Your task to perform on an android device: open app "TextNow: Call + Text Unlimited" (install if not already installed) and enter user name: "stoke@yahoo.com" and password: "prompted" Image 0: 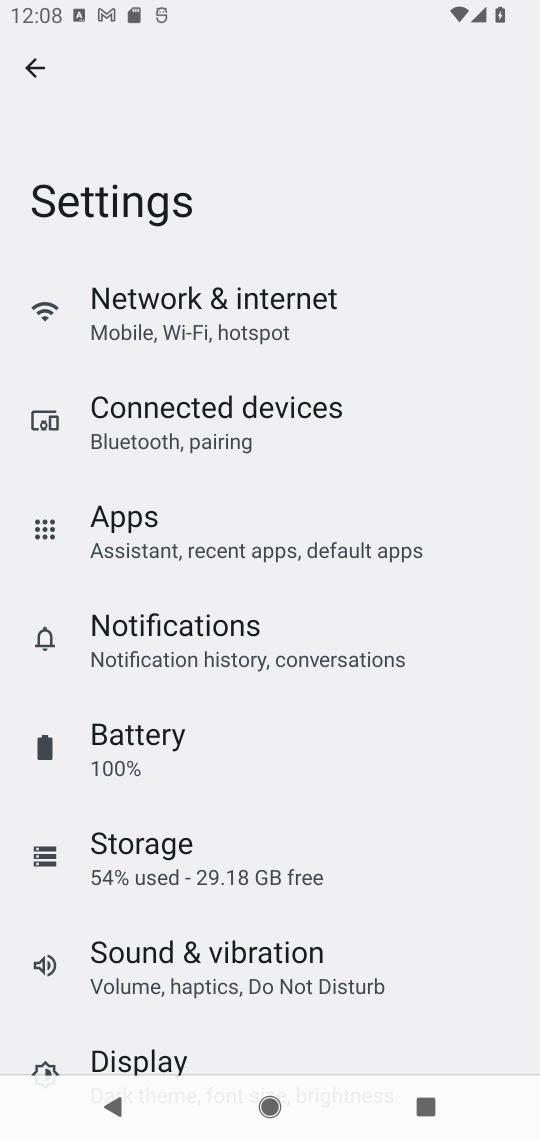
Step 0: press home button
Your task to perform on an android device: open app "TextNow: Call + Text Unlimited" (install if not already installed) and enter user name: "stoke@yahoo.com" and password: "prompted" Image 1: 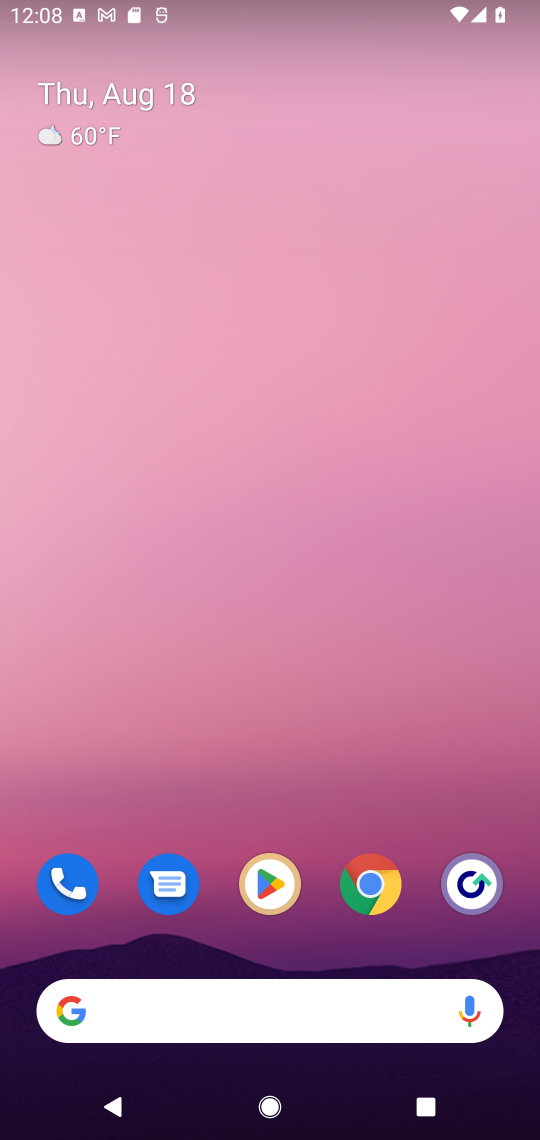
Step 1: drag from (134, 1017) to (290, 188)
Your task to perform on an android device: open app "TextNow: Call + Text Unlimited" (install if not already installed) and enter user name: "stoke@yahoo.com" and password: "prompted" Image 2: 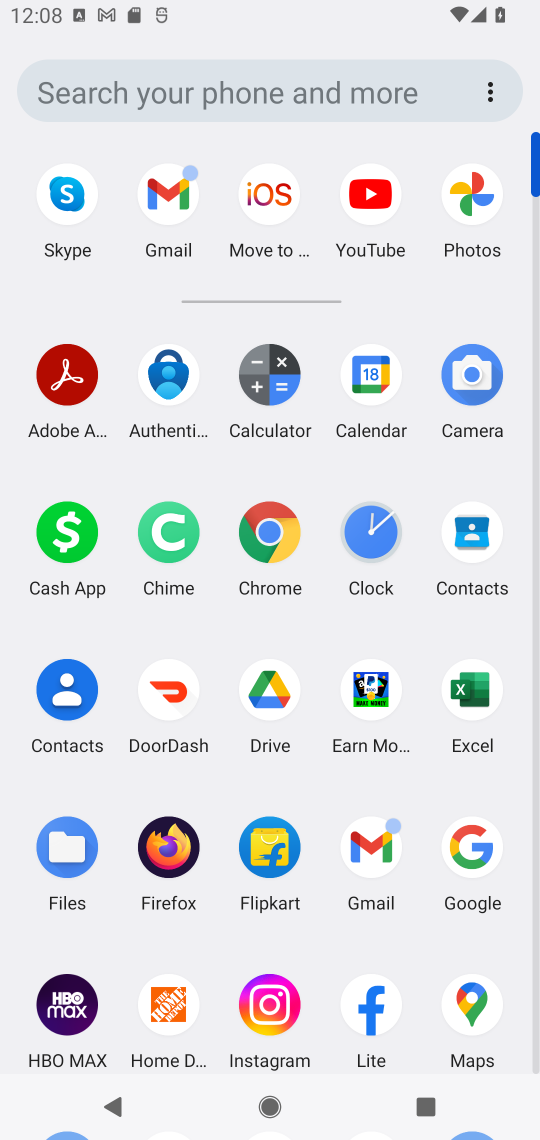
Step 2: drag from (207, 943) to (284, 387)
Your task to perform on an android device: open app "TextNow: Call + Text Unlimited" (install if not already installed) and enter user name: "stoke@yahoo.com" and password: "prompted" Image 3: 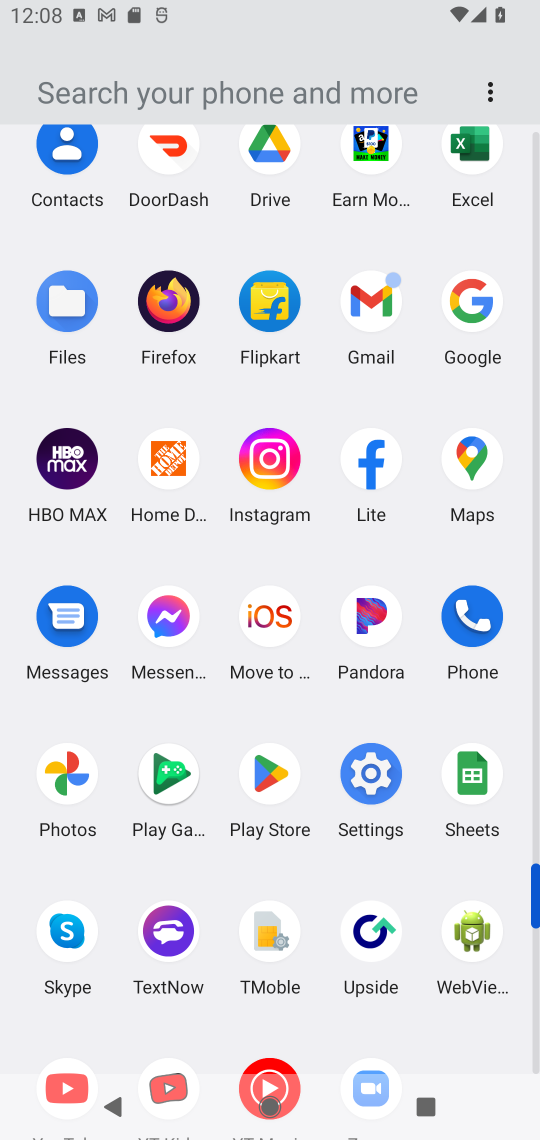
Step 3: click (269, 777)
Your task to perform on an android device: open app "TextNow: Call + Text Unlimited" (install if not already installed) and enter user name: "stoke@yahoo.com" and password: "prompted" Image 4: 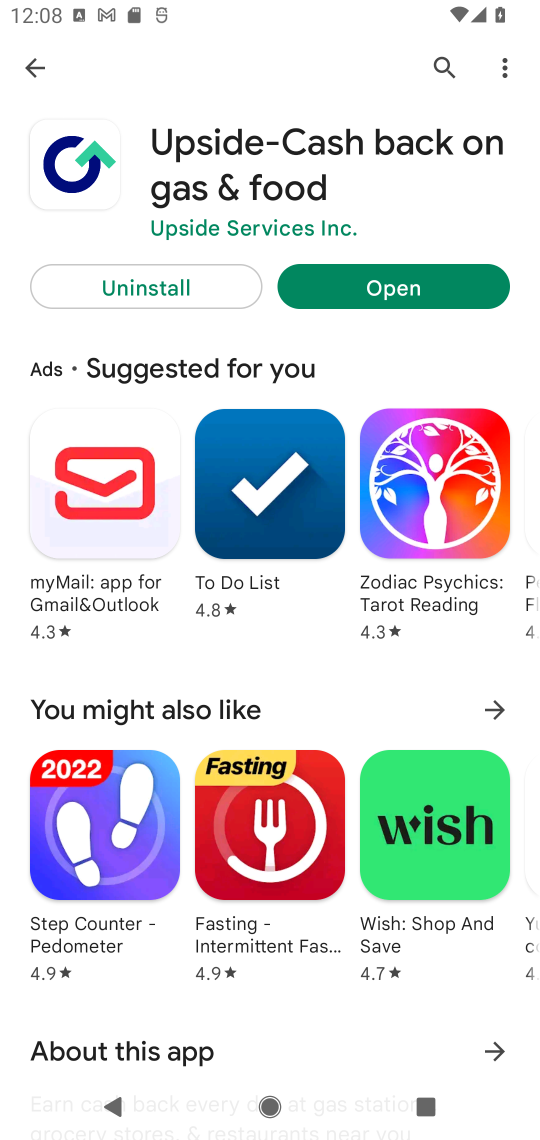
Step 4: press back button
Your task to perform on an android device: open app "TextNow: Call + Text Unlimited" (install if not already installed) and enter user name: "stoke@yahoo.com" and password: "prompted" Image 5: 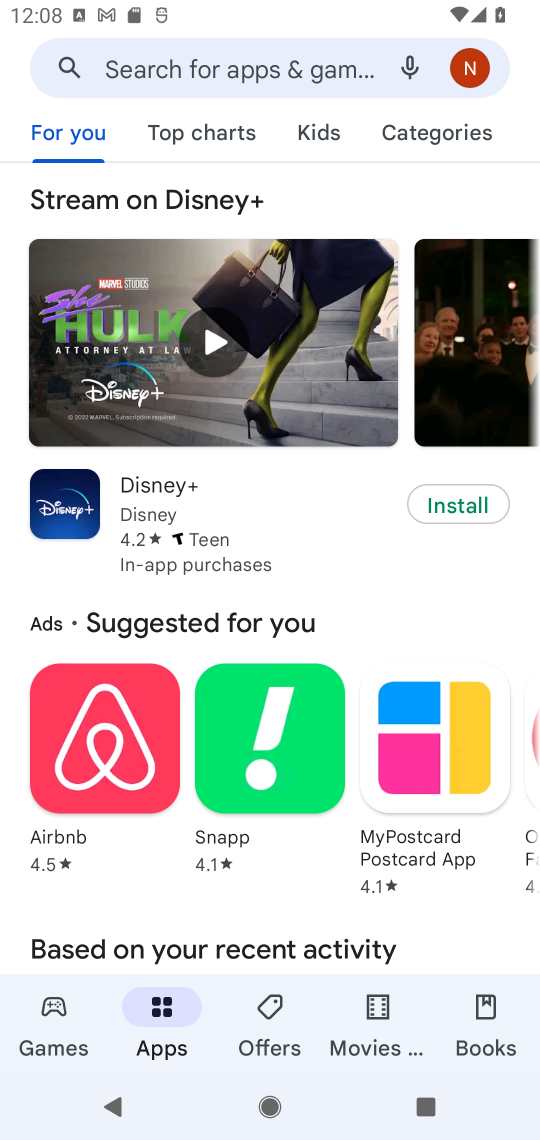
Step 5: click (352, 56)
Your task to perform on an android device: open app "TextNow: Call + Text Unlimited" (install if not already installed) and enter user name: "stoke@yahoo.com" and password: "prompted" Image 6: 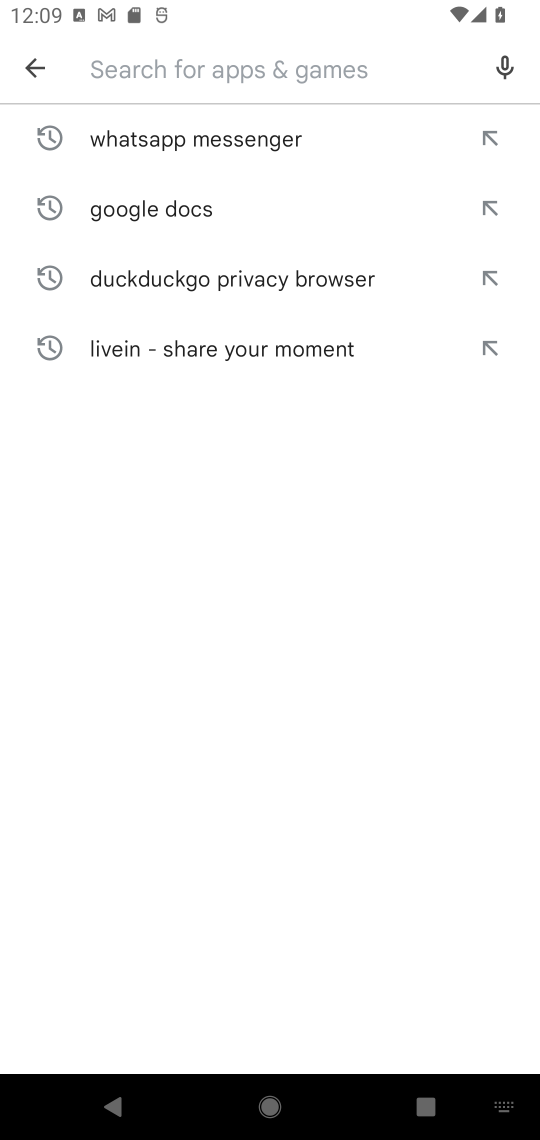
Step 6: type "TextNow: Call + Text Unlimited"
Your task to perform on an android device: open app "TextNow: Call + Text Unlimited" (install if not already installed) and enter user name: "stoke@yahoo.com" and password: "prompted" Image 7: 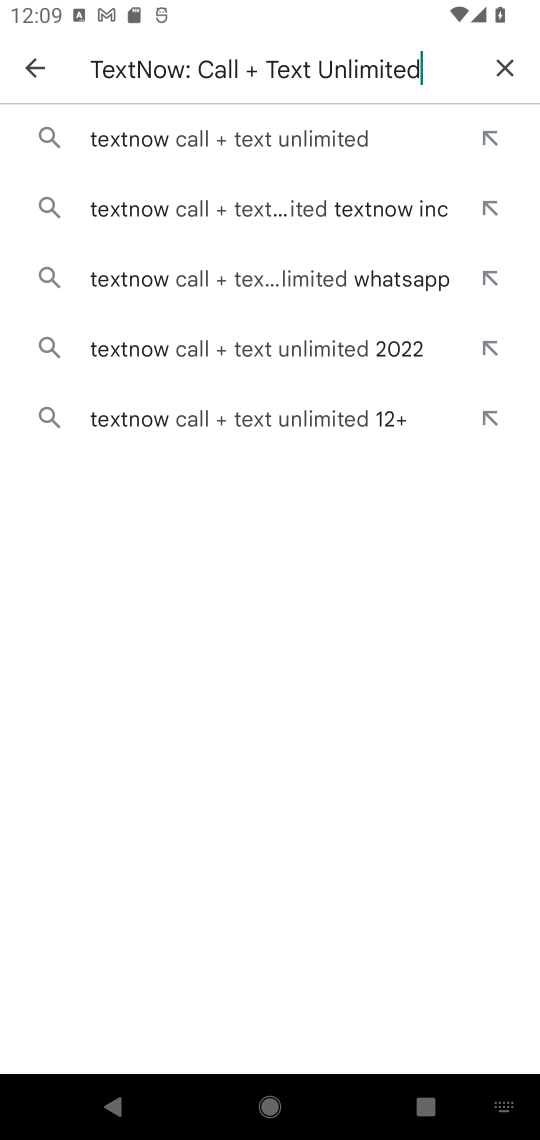
Step 7: click (245, 130)
Your task to perform on an android device: open app "TextNow: Call + Text Unlimited" (install if not already installed) and enter user name: "stoke@yahoo.com" and password: "prompted" Image 8: 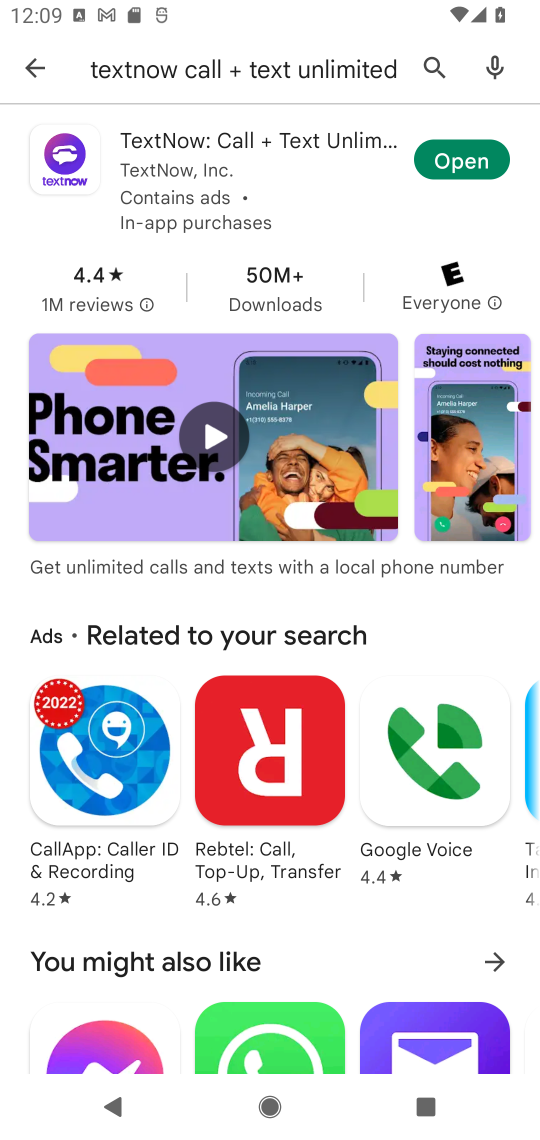
Step 8: click (471, 147)
Your task to perform on an android device: open app "TextNow: Call + Text Unlimited" (install if not already installed) and enter user name: "stoke@yahoo.com" and password: "prompted" Image 9: 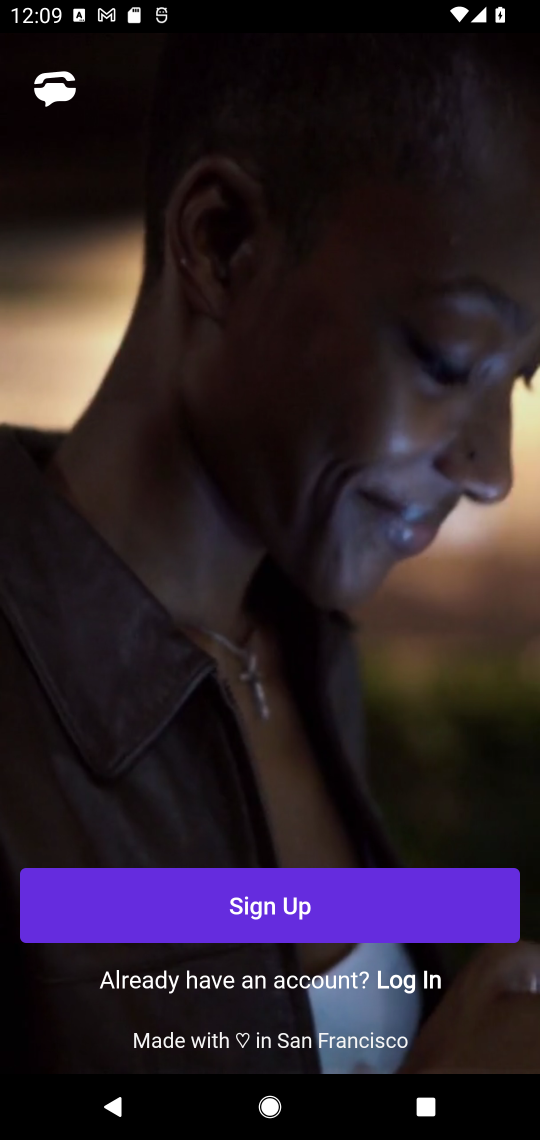
Step 9: click (411, 978)
Your task to perform on an android device: open app "TextNow: Call + Text Unlimited" (install if not already installed) and enter user name: "stoke@yahoo.com" and password: "prompted" Image 10: 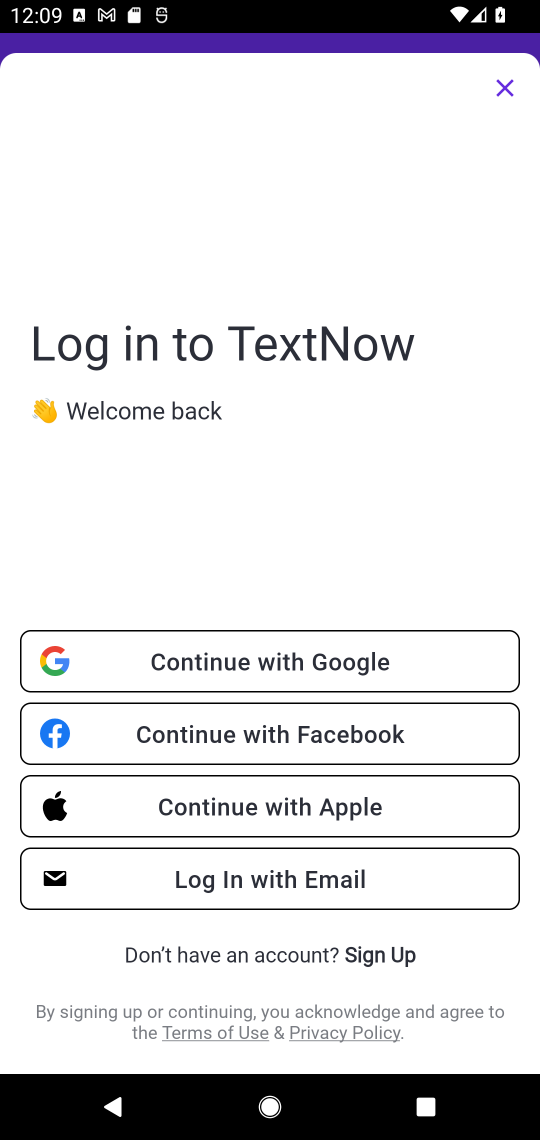
Step 10: click (275, 881)
Your task to perform on an android device: open app "TextNow: Call + Text Unlimited" (install if not already installed) and enter user name: "stoke@yahoo.com" and password: "prompted" Image 11: 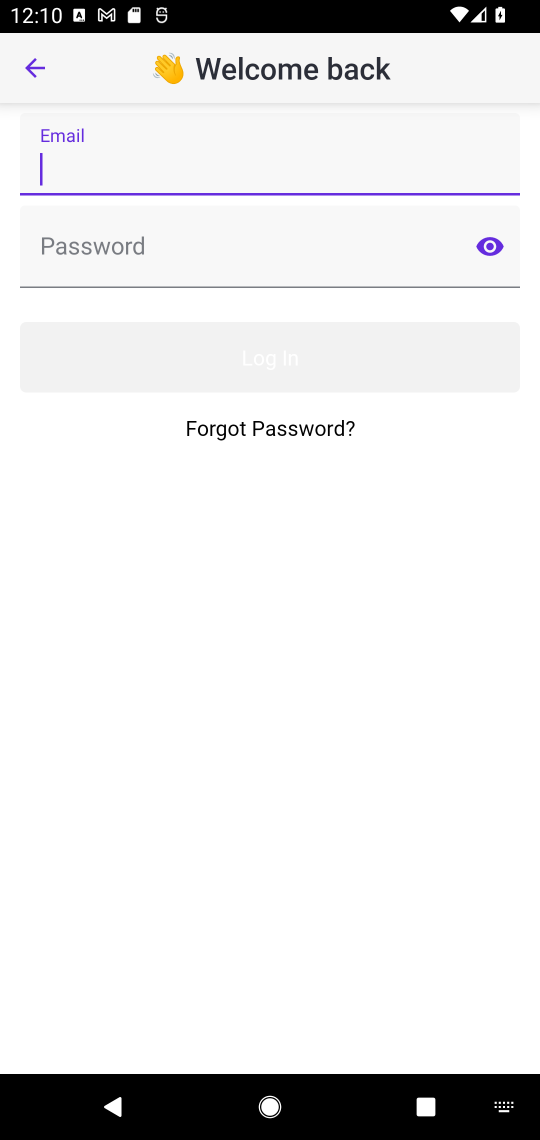
Step 11: type "stoke@yahoo.com"
Your task to perform on an android device: open app "TextNow: Call + Text Unlimited" (install if not already installed) and enter user name: "stoke@yahoo.com" and password: "prompted" Image 12: 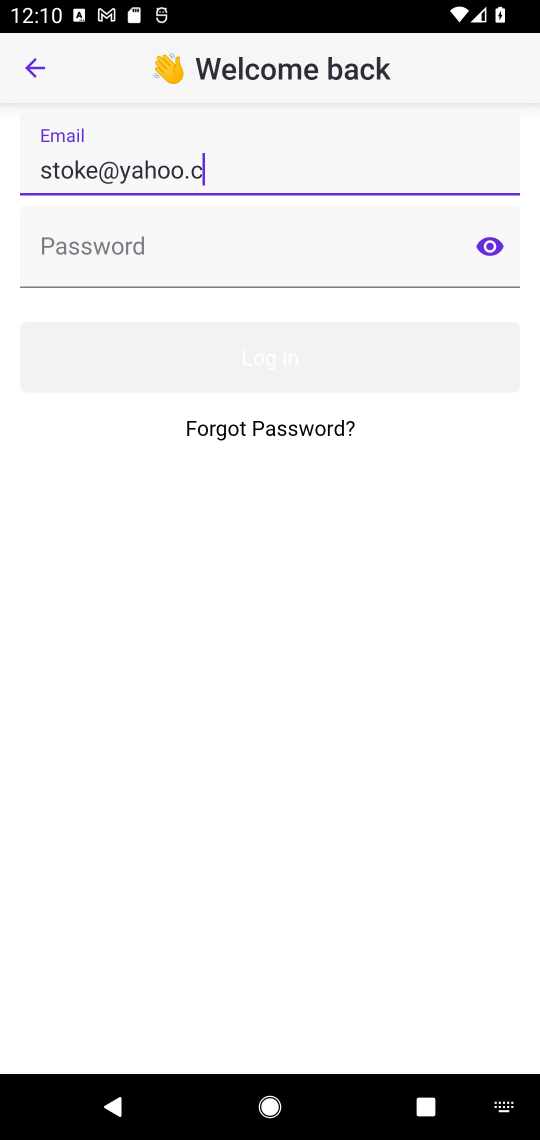
Step 12: type ""
Your task to perform on an android device: open app "TextNow: Call + Text Unlimited" (install if not already installed) and enter user name: "stoke@yahoo.com" and password: "prompted" Image 13: 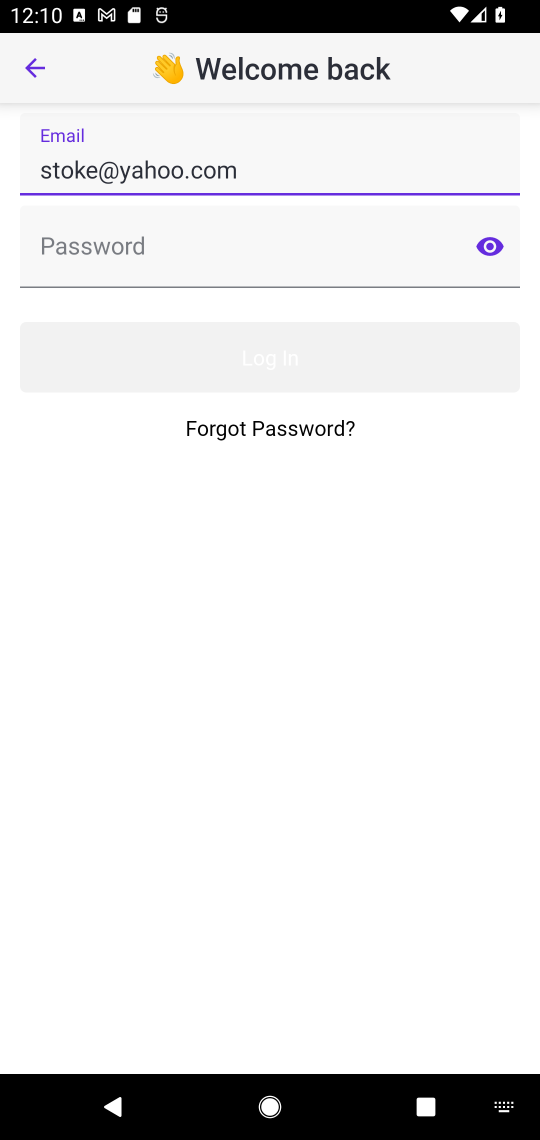
Step 13: click (73, 230)
Your task to perform on an android device: open app "TextNow: Call + Text Unlimited" (install if not already installed) and enter user name: "stoke@yahoo.com" and password: "prompted" Image 14: 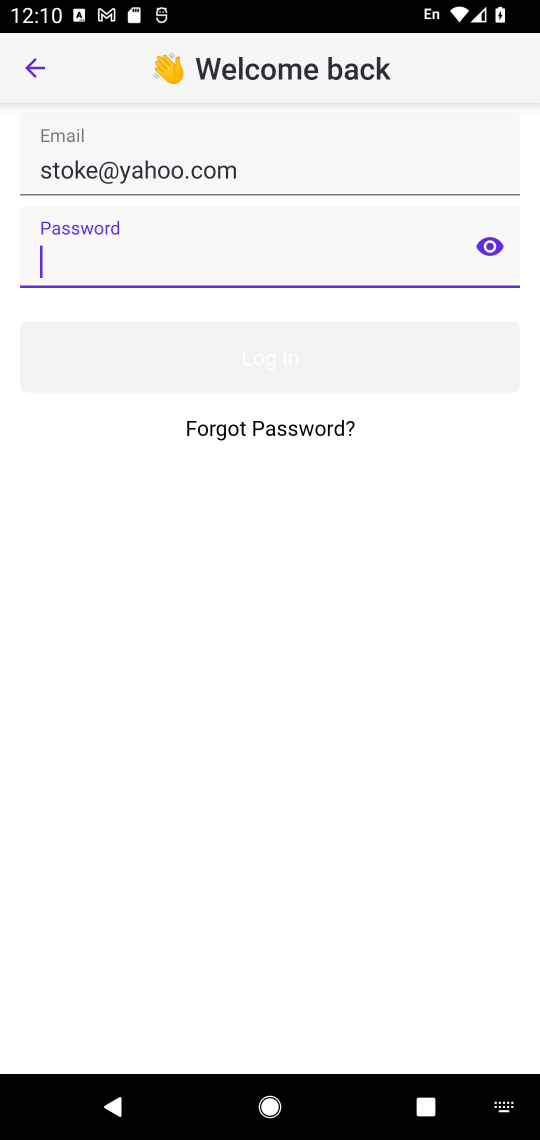
Step 14: type "prompted"
Your task to perform on an android device: open app "TextNow: Call + Text Unlimited" (install if not already installed) and enter user name: "stoke@yahoo.com" and password: "prompted" Image 15: 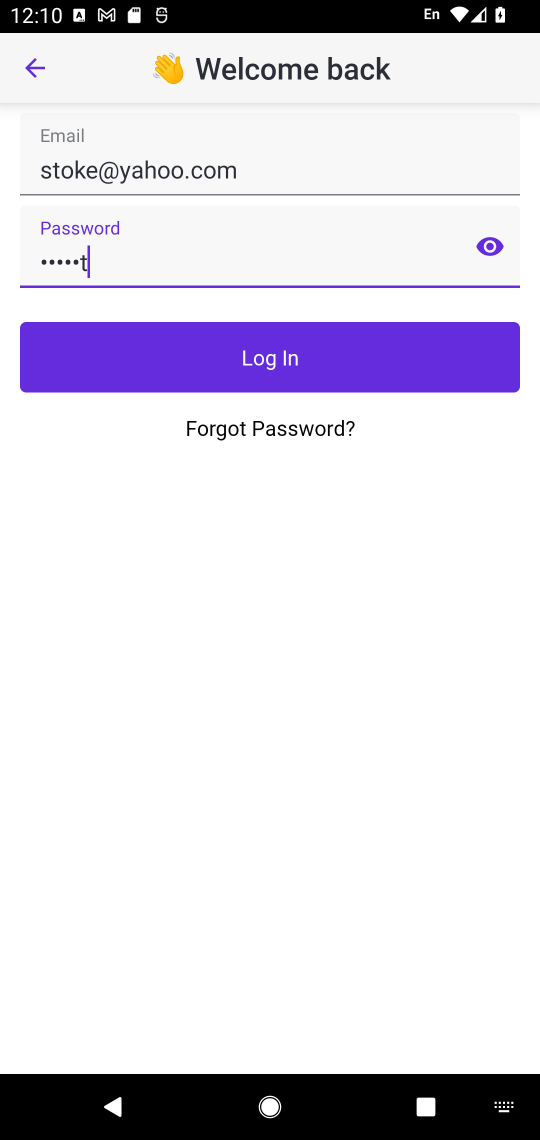
Step 15: type ""
Your task to perform on an android device: open app "TextNow: Call + Text Unlimited" (install if not already installed) and enter user name: "stoke@yahoo.com" and password: "prompted" Image 16: 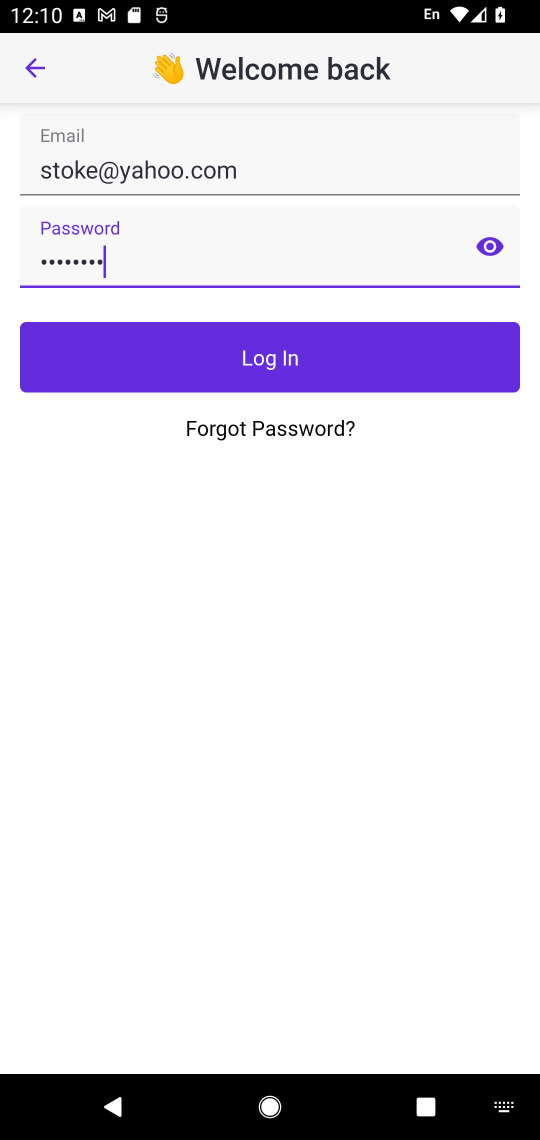
Step 16: task complete